Your task to perform on an android device: Go to Android settings Image 0: 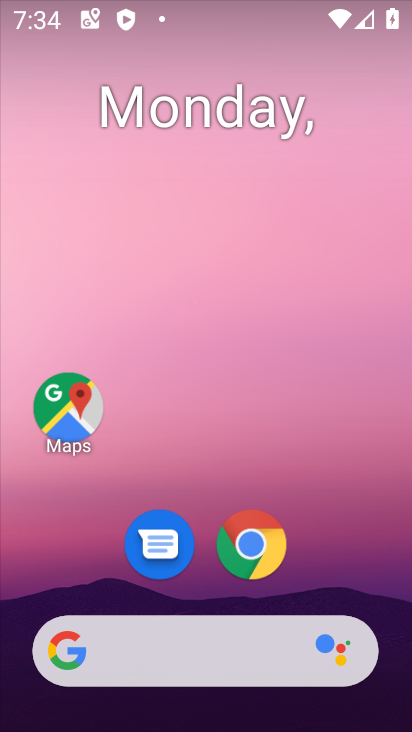
Step 0: drag from (340, 536) to (185, 1)
Your task to perform on an android device: Go to Android settings Image 1: 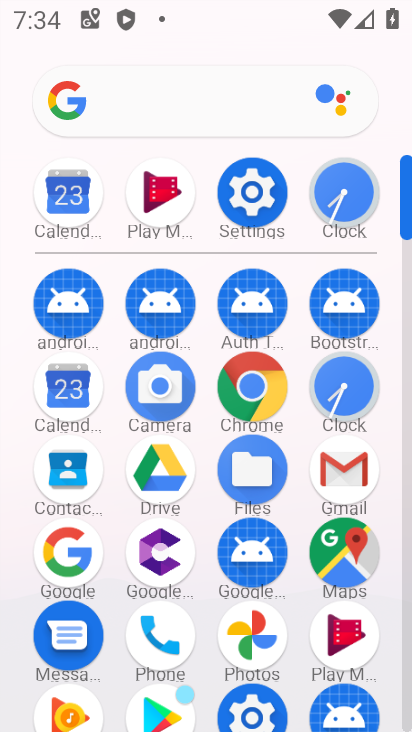
Step 1: click (253, 197)
Your task to perform on an android device: Go to Android settings Image 2: 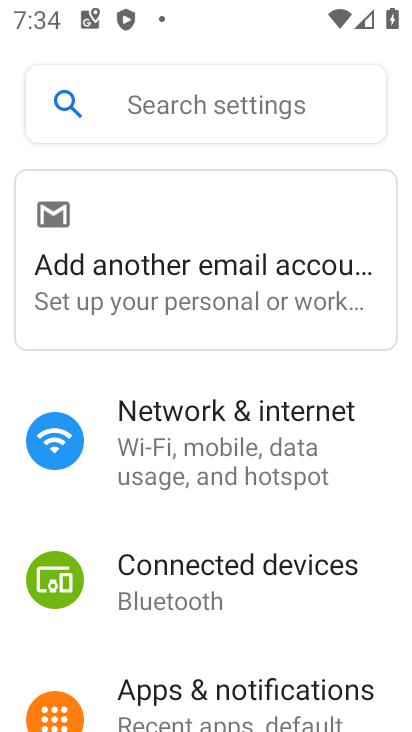
Step 2: task complete